Your task to perform on an android device: Go to Google Image 0: 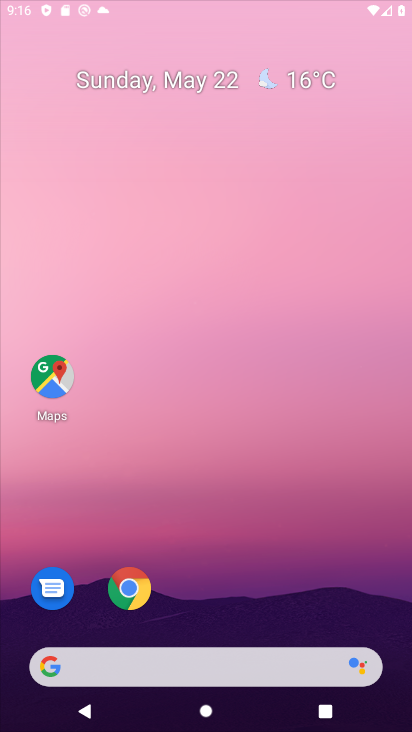
Step 0: drag from (210, 601) to (241, 139)
Your task to perform on an android device: Go to Google Image 1: 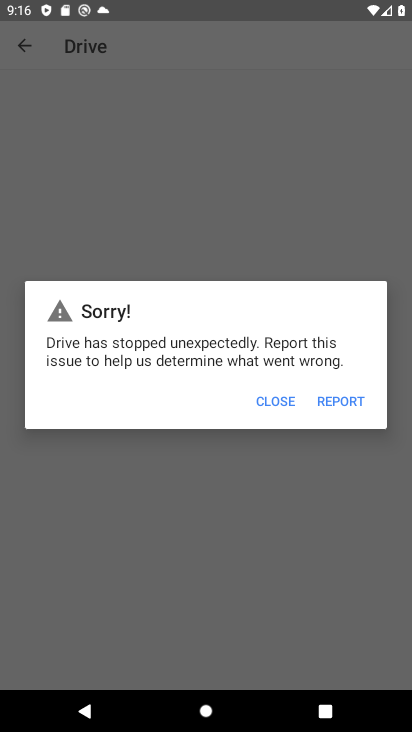
Step 1: press home button
Your task to perform on an android device: Go to Google Image 2: 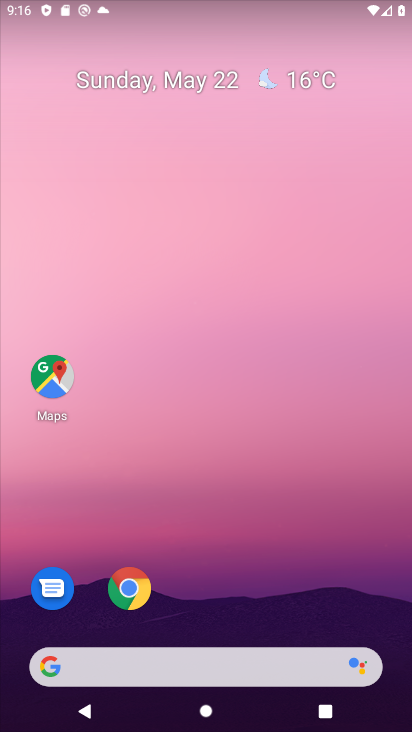
Step 2: drag from (264, 589) to (244, 127)
Your task to perform on an android device: Go to Google Image 3: 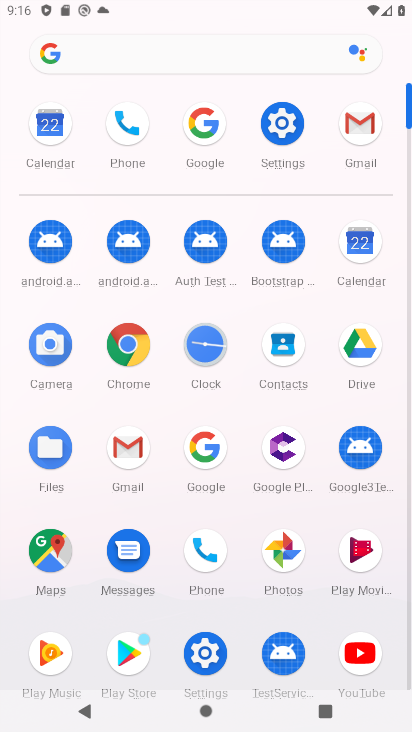
Step 3: click (214, 120)
Your task to perform on an android device: Go to Google Image 4: 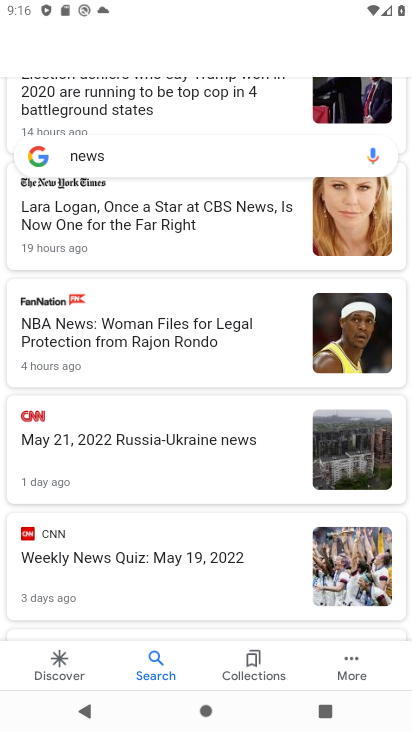
Step 4: task complete